Your task to perform on an android device: turn off notifications settings in the gmail app Image 0: 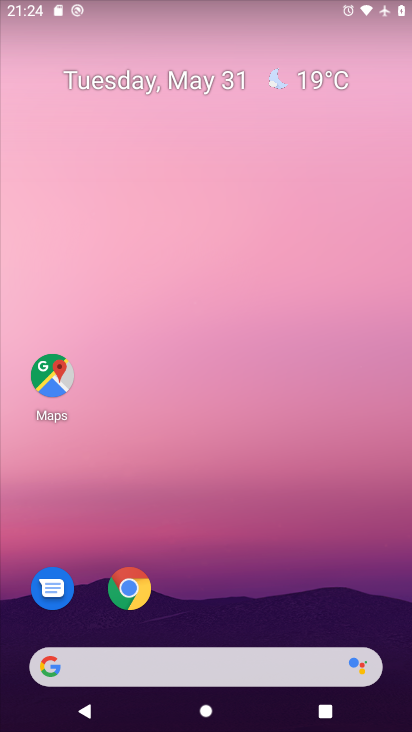
Step 0: drag from (146, 668) to (322, 39)
Your task to perform on an android device: turn off notifications settings in the gmail app Image 1: 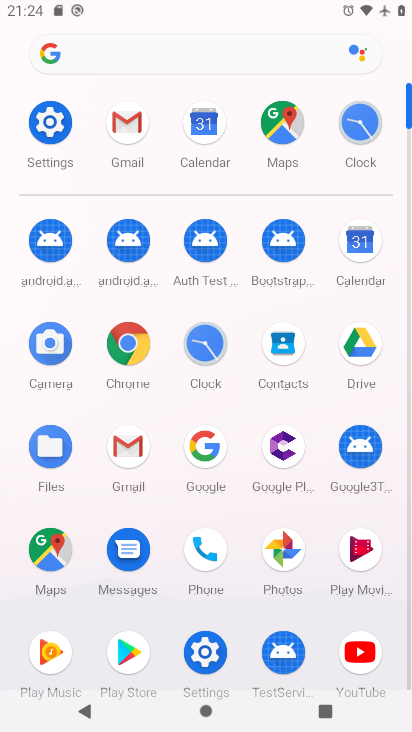
Step 1: click (128, 129)
Your task to perform on an android device: turn off notifications settings in the gmail app Image 2: 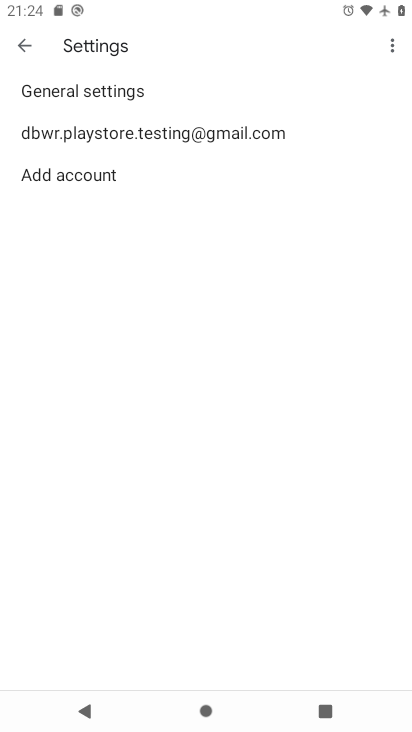
Step 2: click (127, 136)
Your task to perform on an android device: turn off notifications settings in the gmail app Image 3: 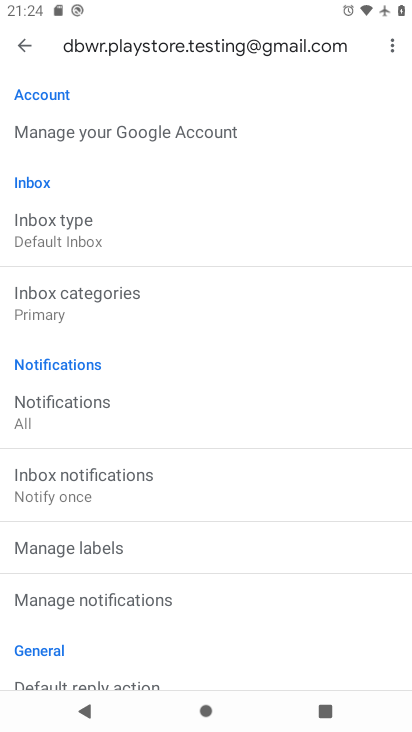
Step 3: click (66, 417)
Your task to perform on an android device: turn off notifications settings in the gmail app Image 4: 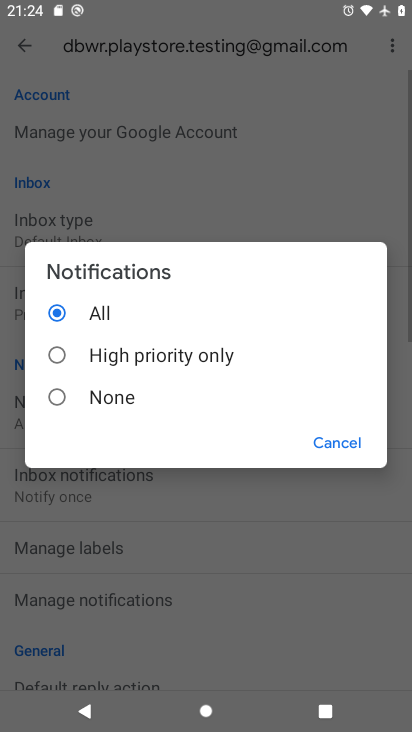
Step 4: click (50, 400)
Your task to perform on an android device: turn off notifications settings in the gmail app Image 5: 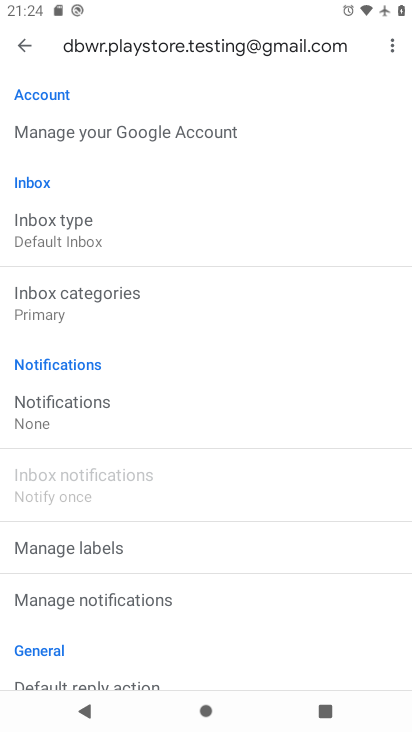
Step 5: task complete